Your task to perform on an android device: set the stopwatch Image 0: 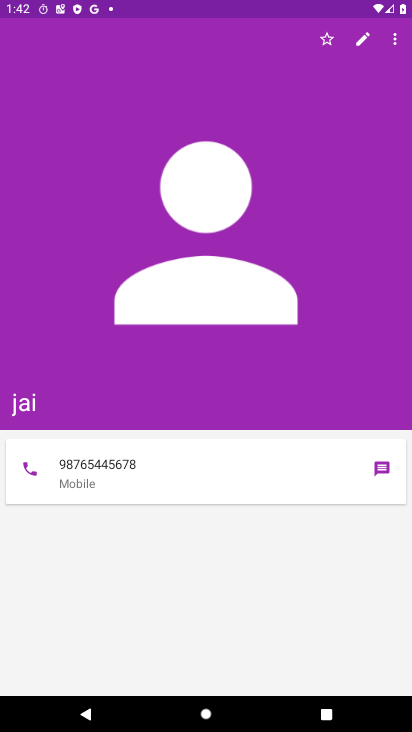
Step 0: press home button
Your task to perform on an android device: set the stopwatch Image 1: 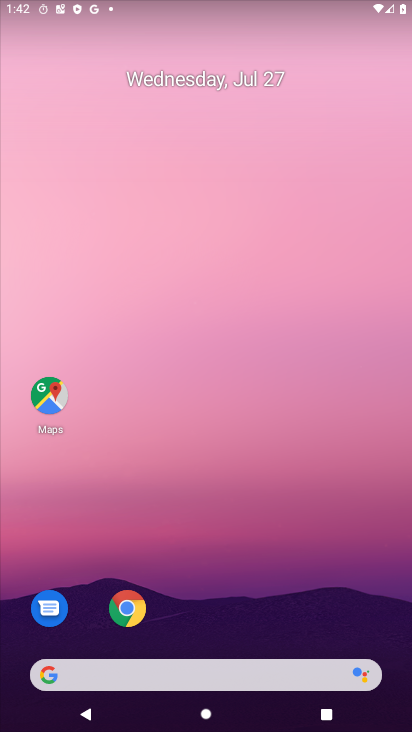
Step 1: drag from (216, 640) to (213, 180)
Your task to perform on an android device: set the stopwatch Image 2: 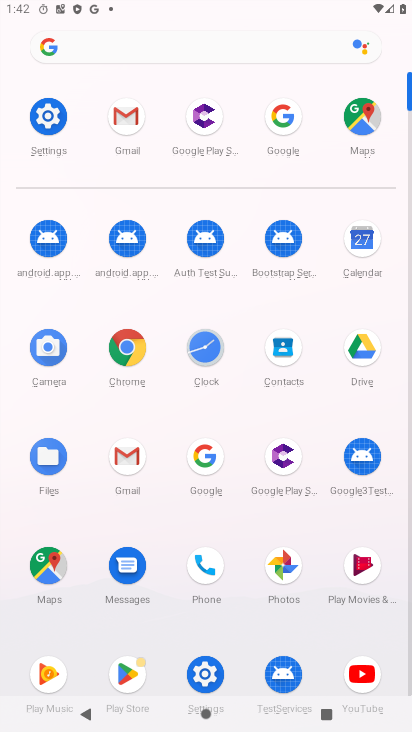
Step 2: click (193, 350)
Your task to perform on an android device: set the stopwatch Image 3: 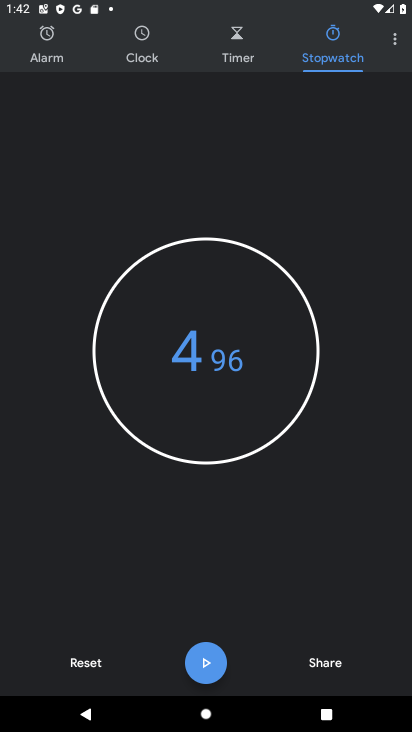
Step 3: task complete